Your task to perform on an android device: Go to settings Image 0: 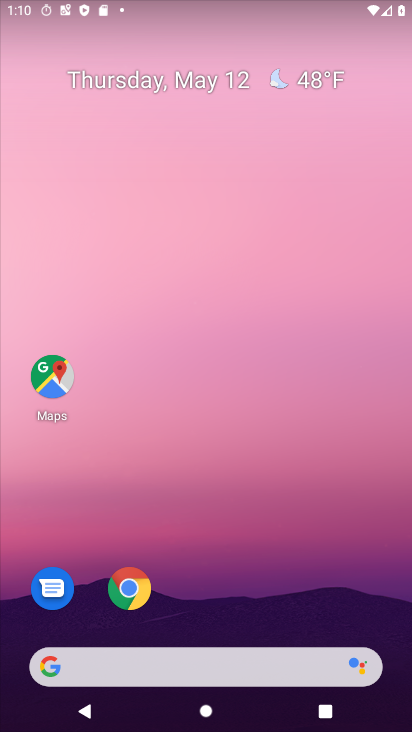
Step 0: drag from (215, 593) to (253, 122)
Your task to perform on an android device: Go to settings Image 1: 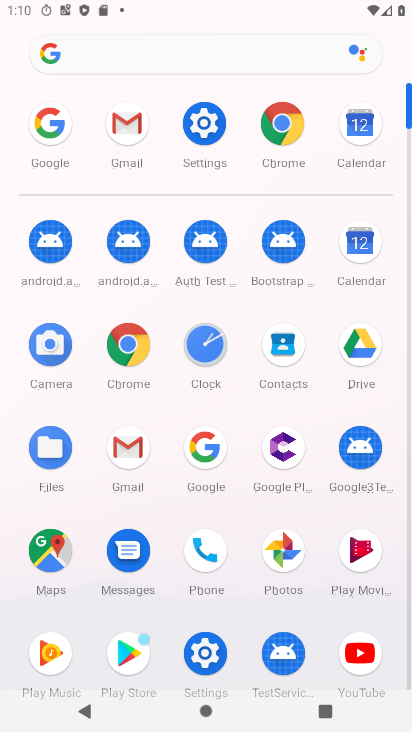
Step 1: click (205, 122)
Your task to perform on an android device: Go to settings Image 2: 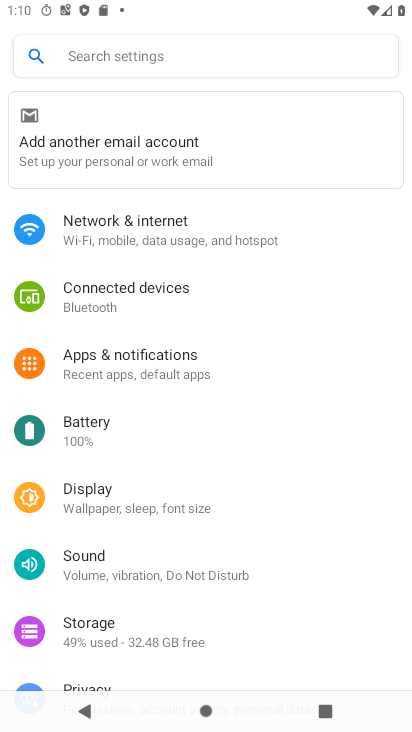
Step 2: task complete